Your task to perform on an android device: open app "DuckDuckGo Privacy Browser" (install if not already installed) and go to login screen Image 0: 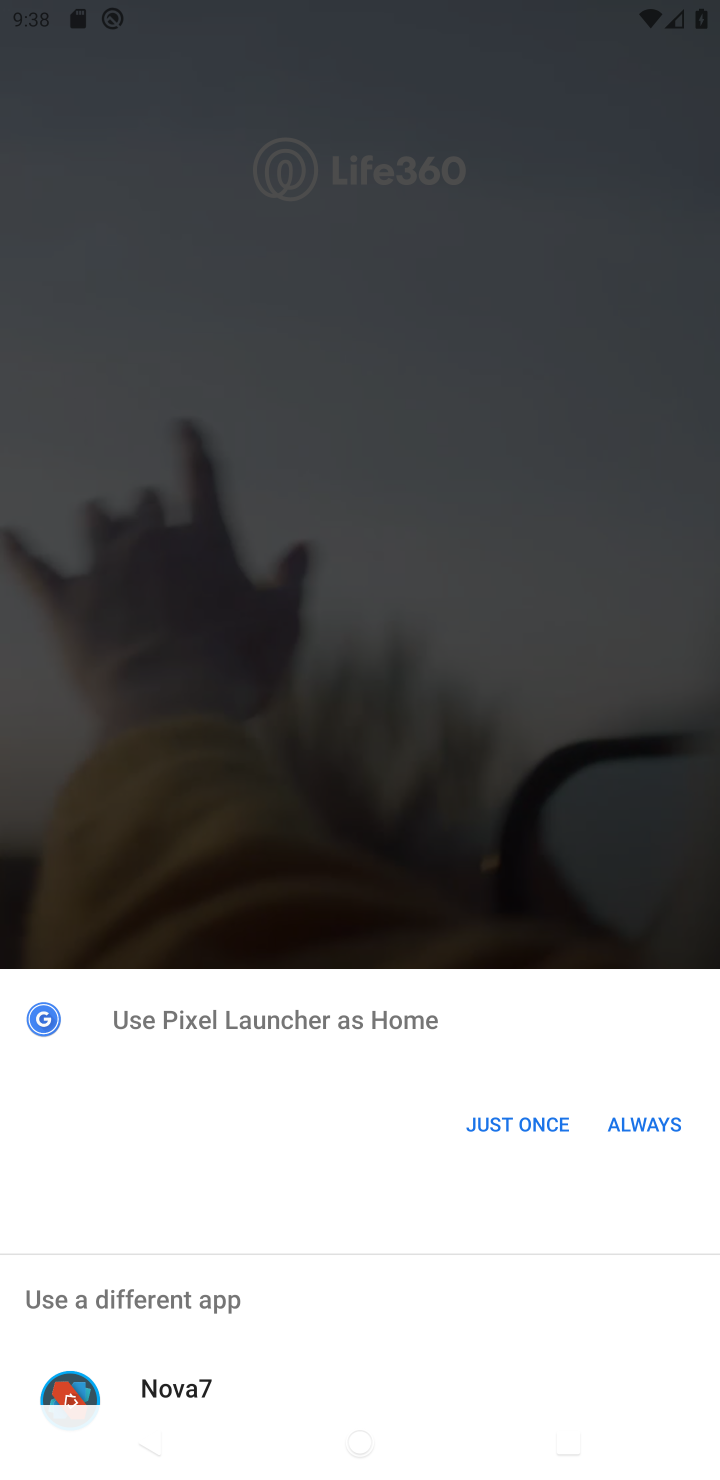
Step 0: press home button
Your task to perform on an android device: open app "DuckDuckGo Privacy Browser" (install if not already installed) and go to login screen Image 1: 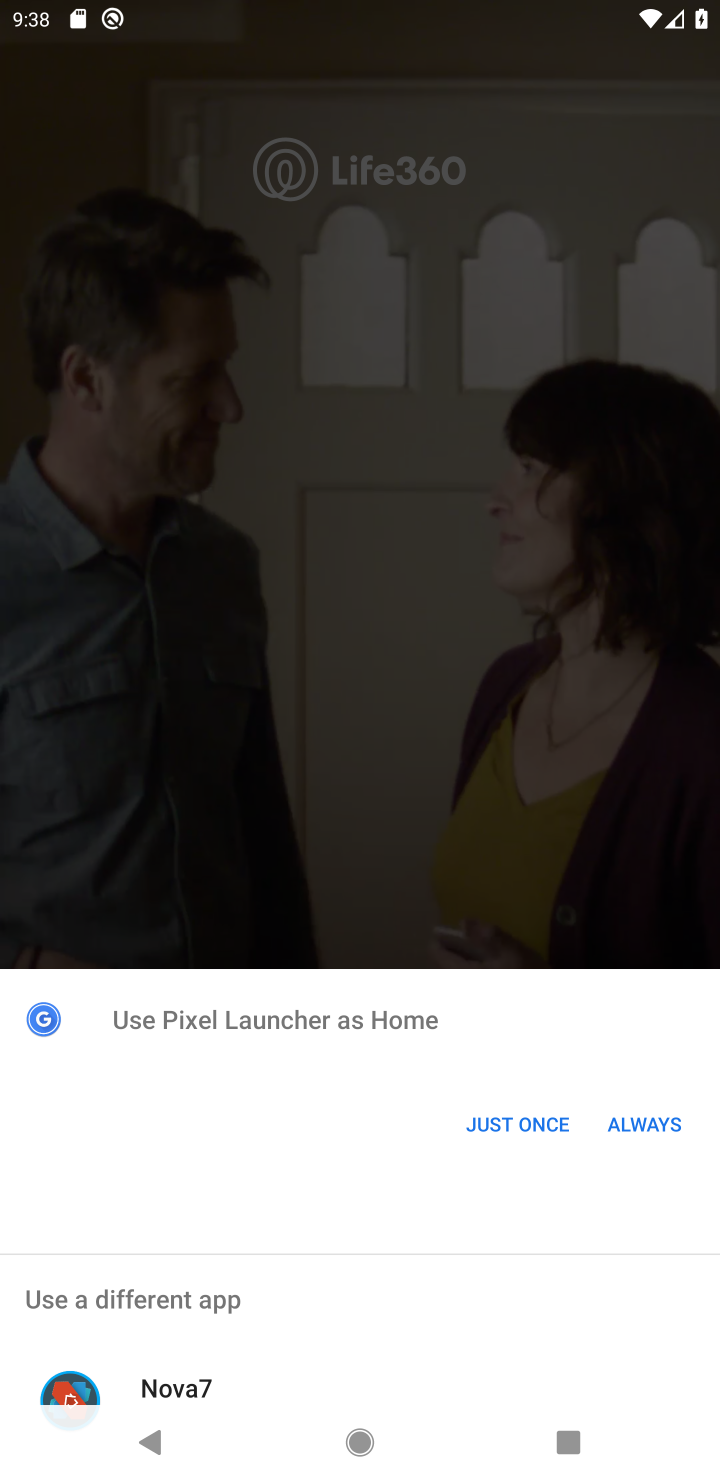
Step 1: press home button
Your task to perform on an android device: open app "DuckDuckGo Privacy Browser" (install if not already installed) and go to login screen Image 2: 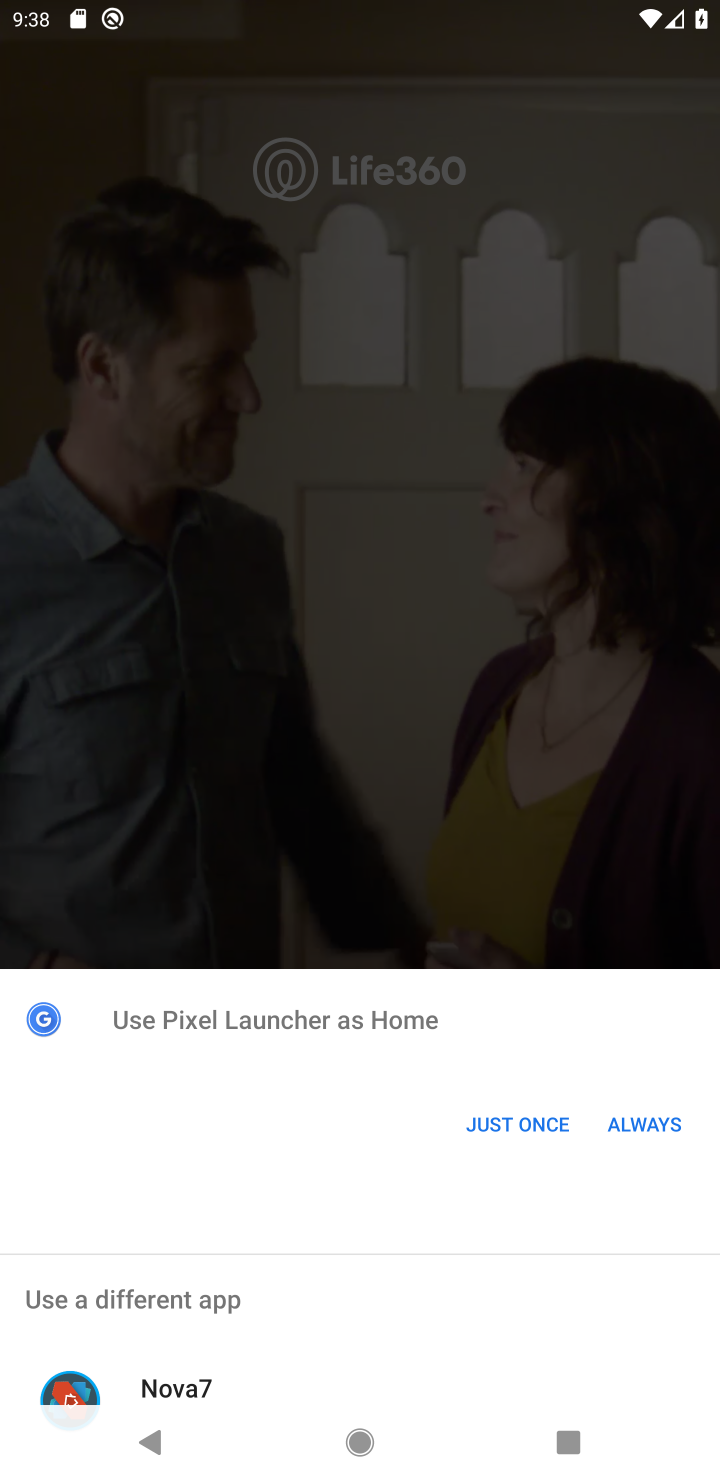
Step 2: click (649, 1133)
Your task to perform on an android device: open app "DuckDuckGo Privacy Browser" (install if not already installed) and go to login screen Image 3: 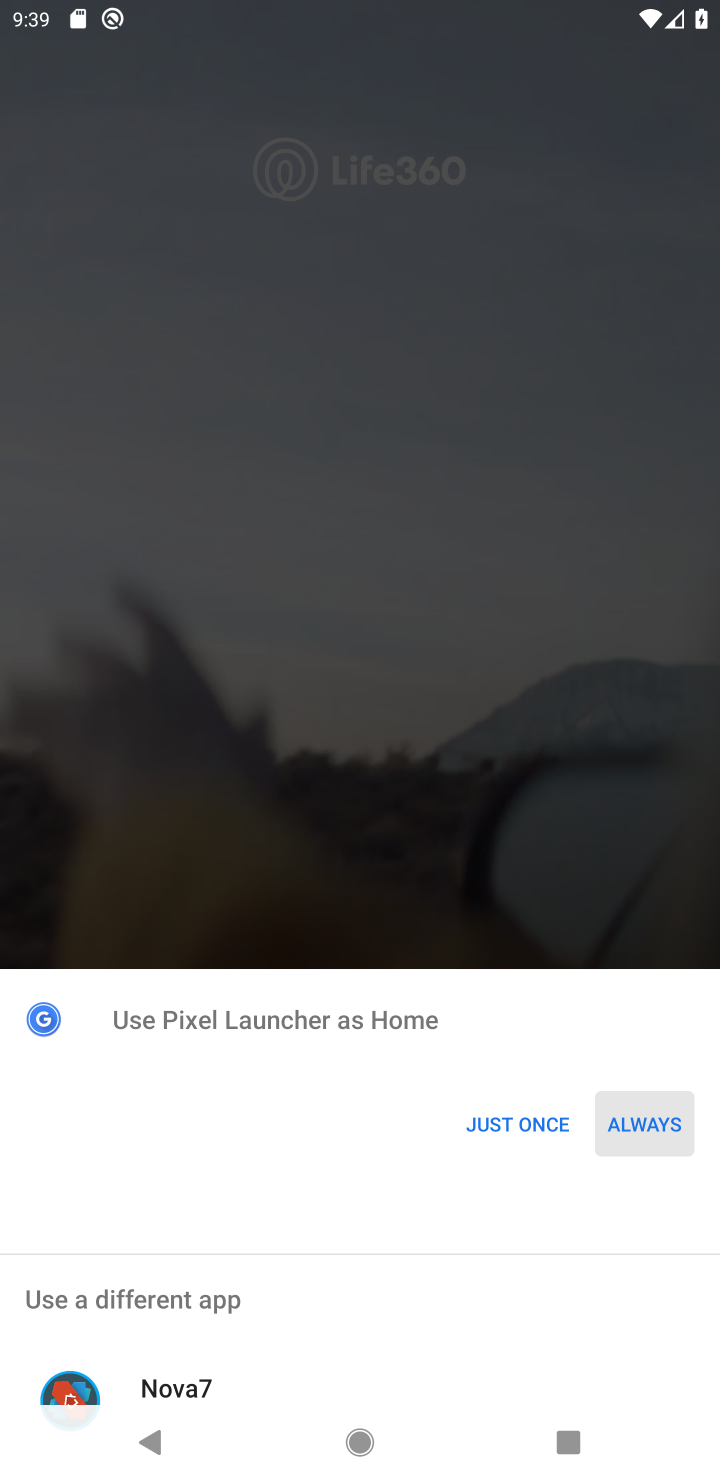
Step 3: click (621, 1120)
Your task to perform on an android device: open app "DuckDuckGo Privacy Browser" (install if not already installed) and go to login screen Image 4: 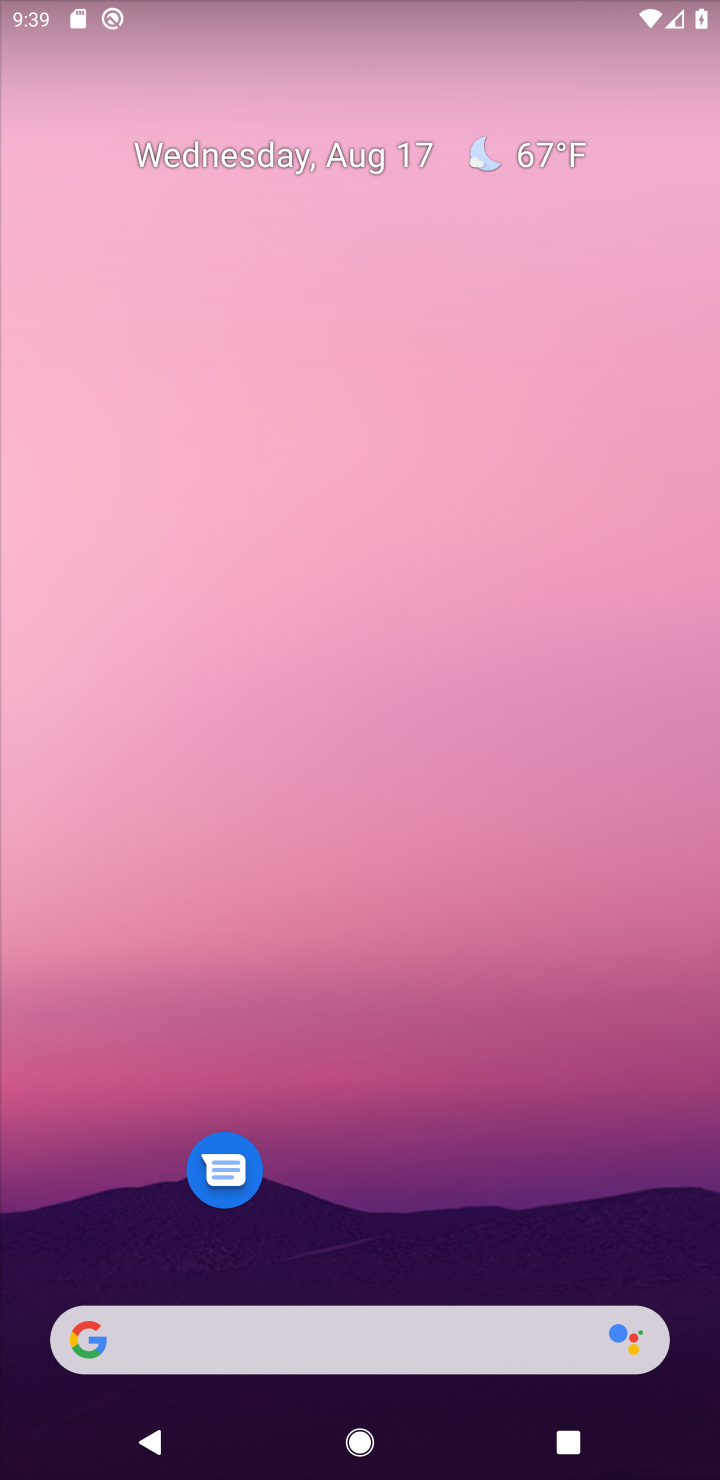
Step 4: drag from (342, 1281) to (230, 73)
Your task to perform on an android device: open app "DuckDuckGo Privacy Browser" (install if not already installed) and go to login screen Image 5: 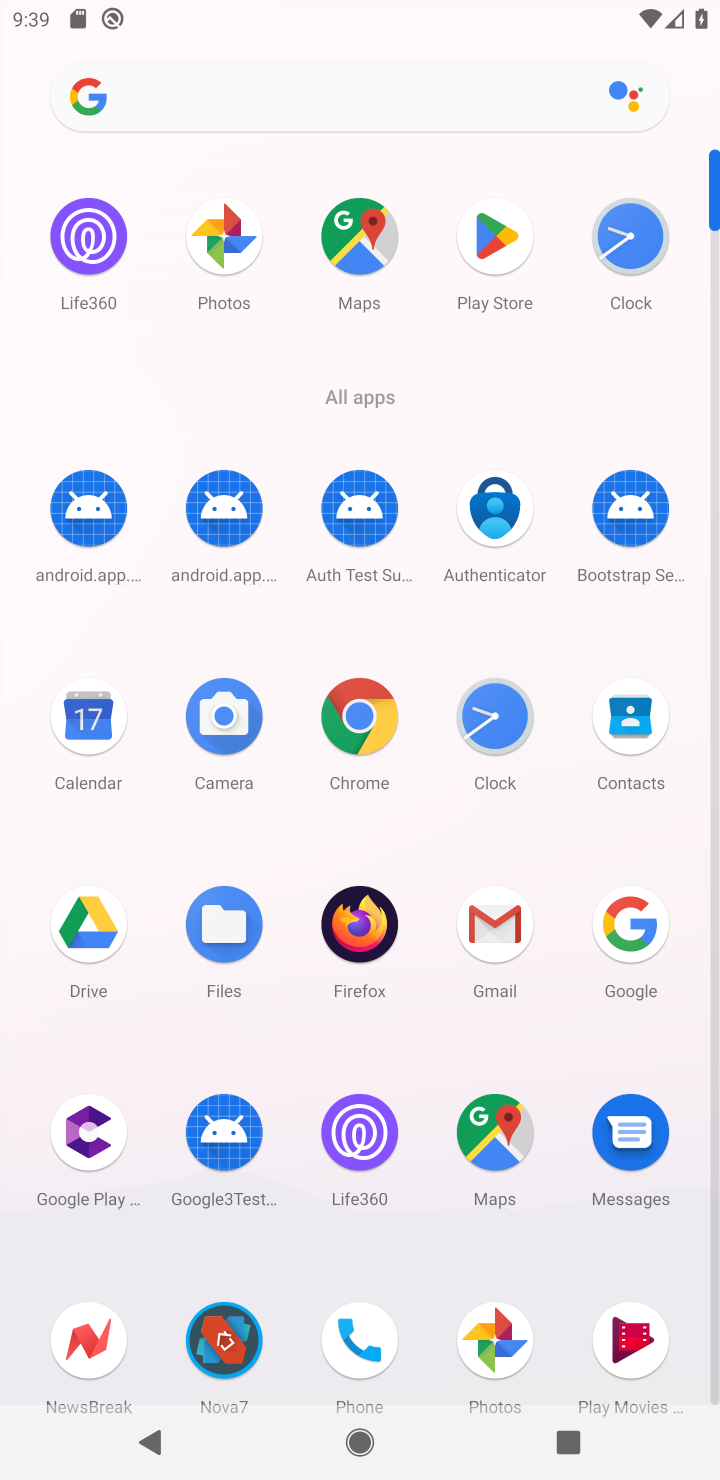
Step 5: click (521, 228)
Your task to perform on an android device: open app "DuckDuckGo Privacy Browser" (install if not already installed) and go to login screen Image 6: 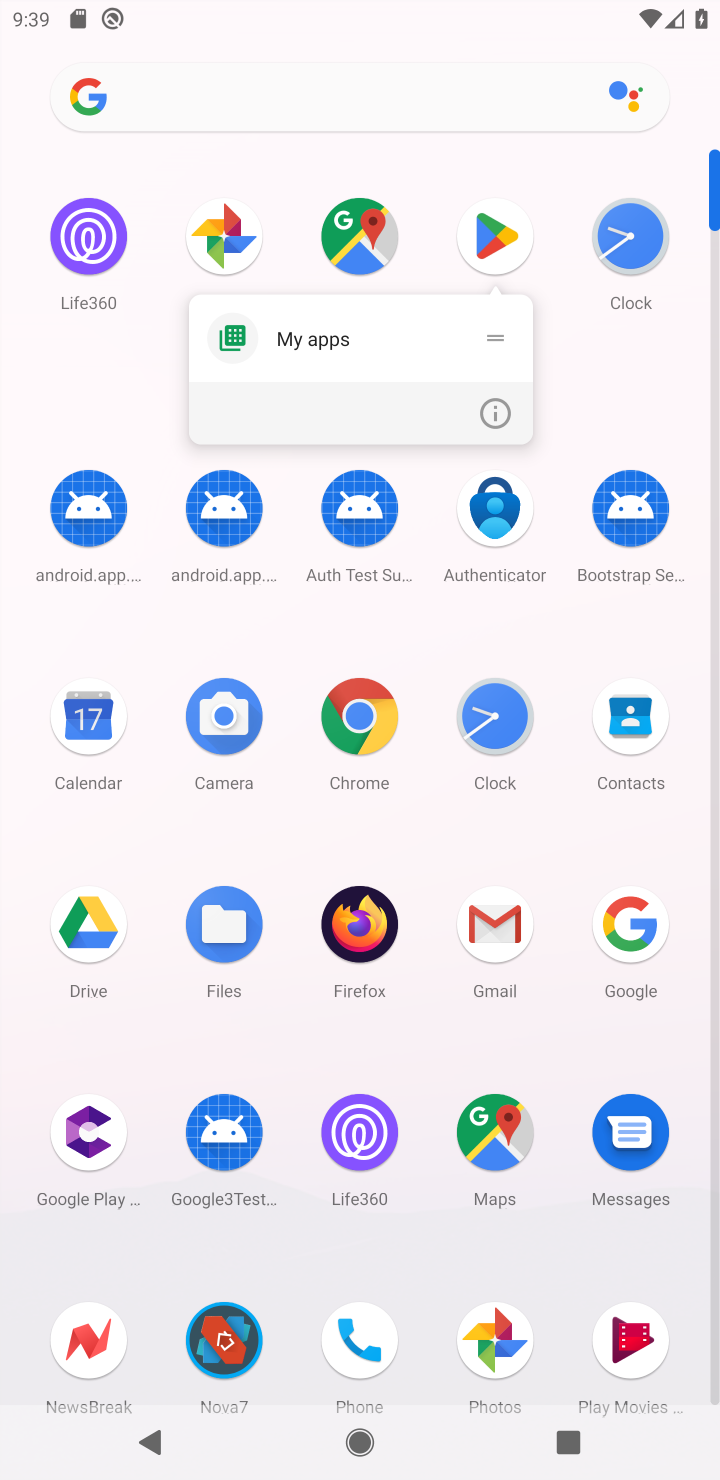
Step 6: click (482, 250)
Your task to perform on an android device: open app "DuckDuckGo Privacy Browser" (install if not already installed) and go to login screen Image 7: 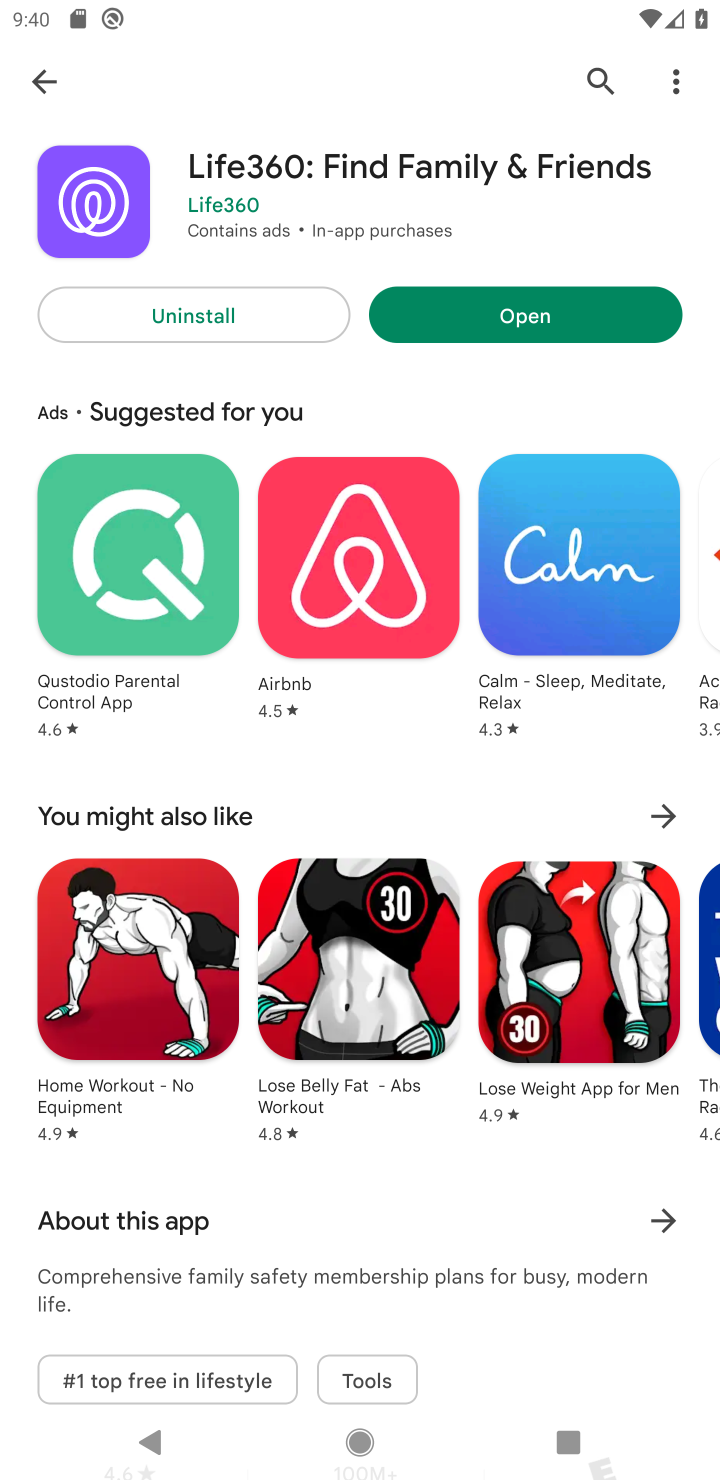
Step 7: click (56, 76)
Your task to perform on an android device: open app "DuckDuckGo Privacy Browser" (install if not already installed) and go to login screen Image 8: 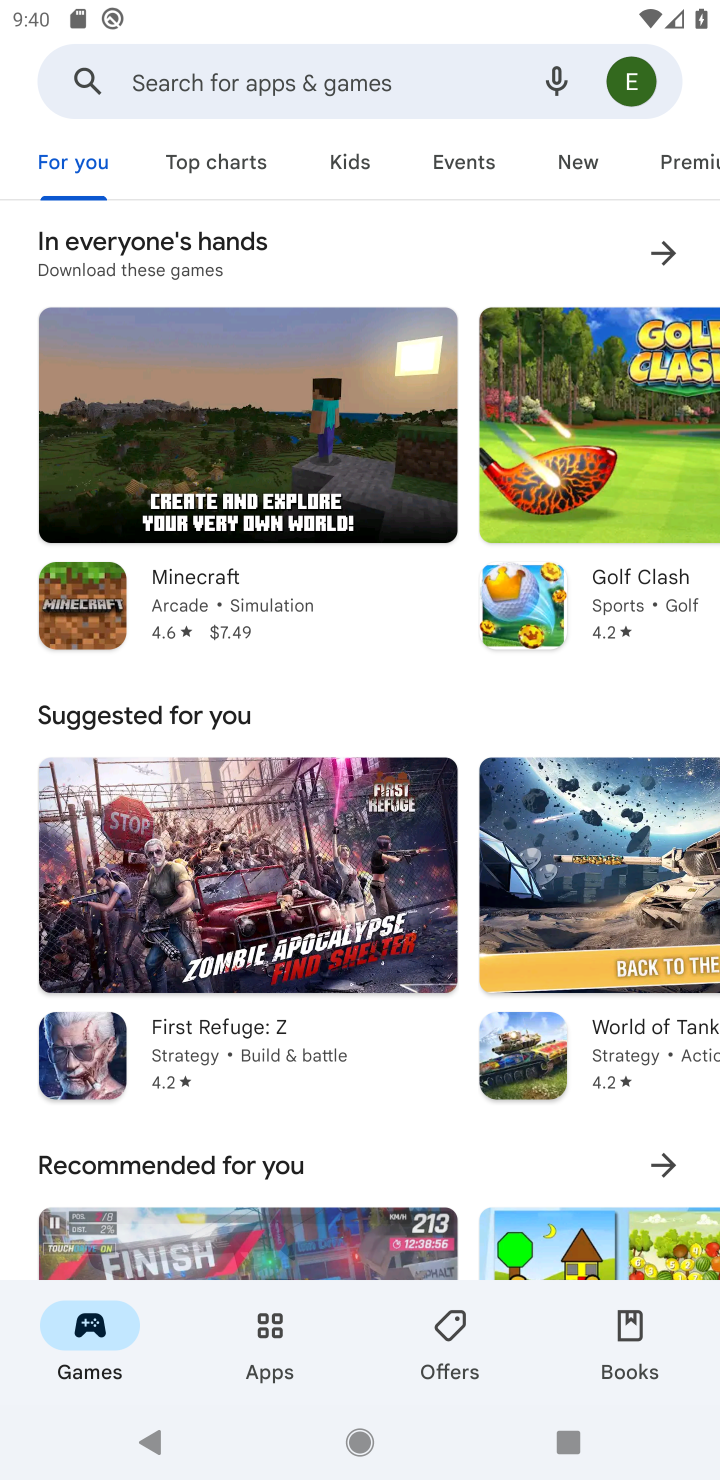
Step 8: click (263, 68)
Your task to perform on an android device: open app "DuckDuckGo Privacy Browser" (install if not already installed) and go to login screen Image 9: 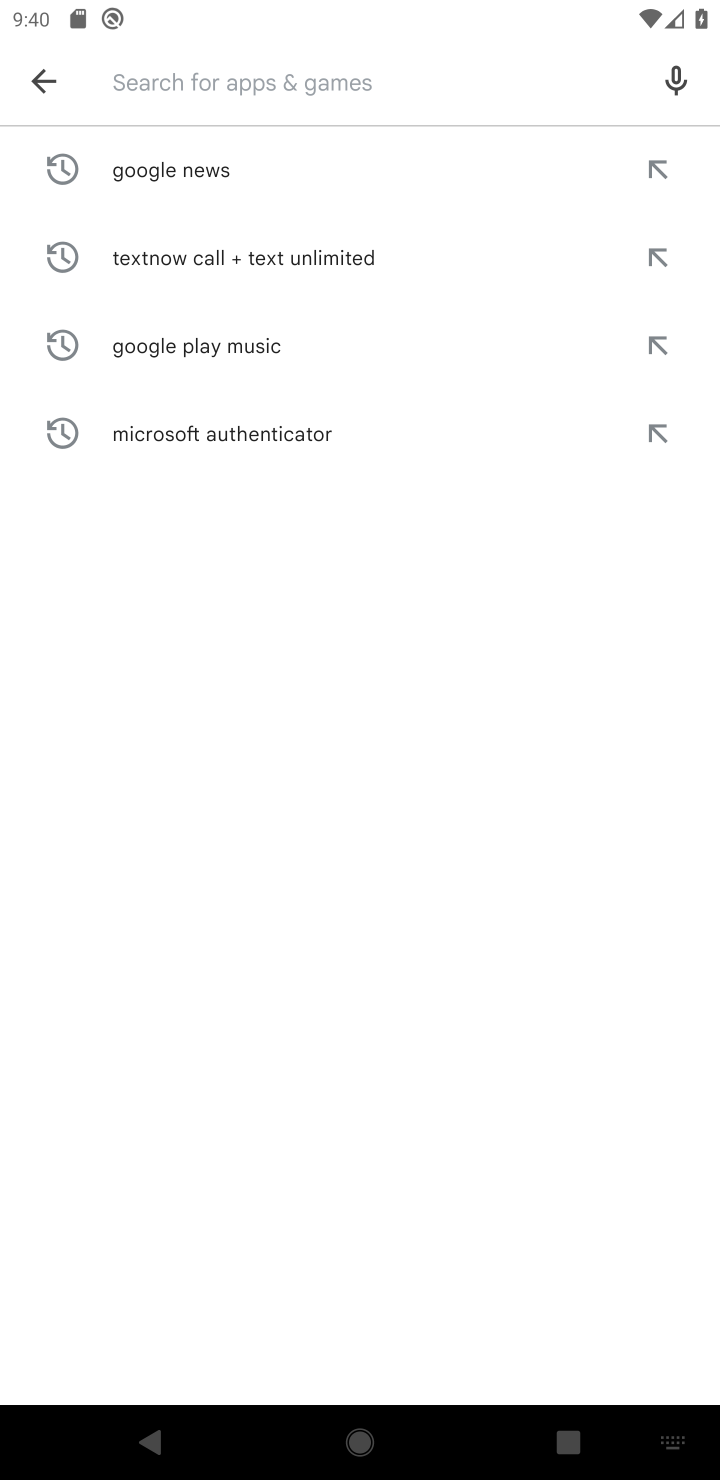
Step 9: type "DuckDuckGo Privacy Browser"
Your task to perform on an android device: open app "DuckDuckGo Privacy Browser" (install if not already installed) and go to login screen Image 10: 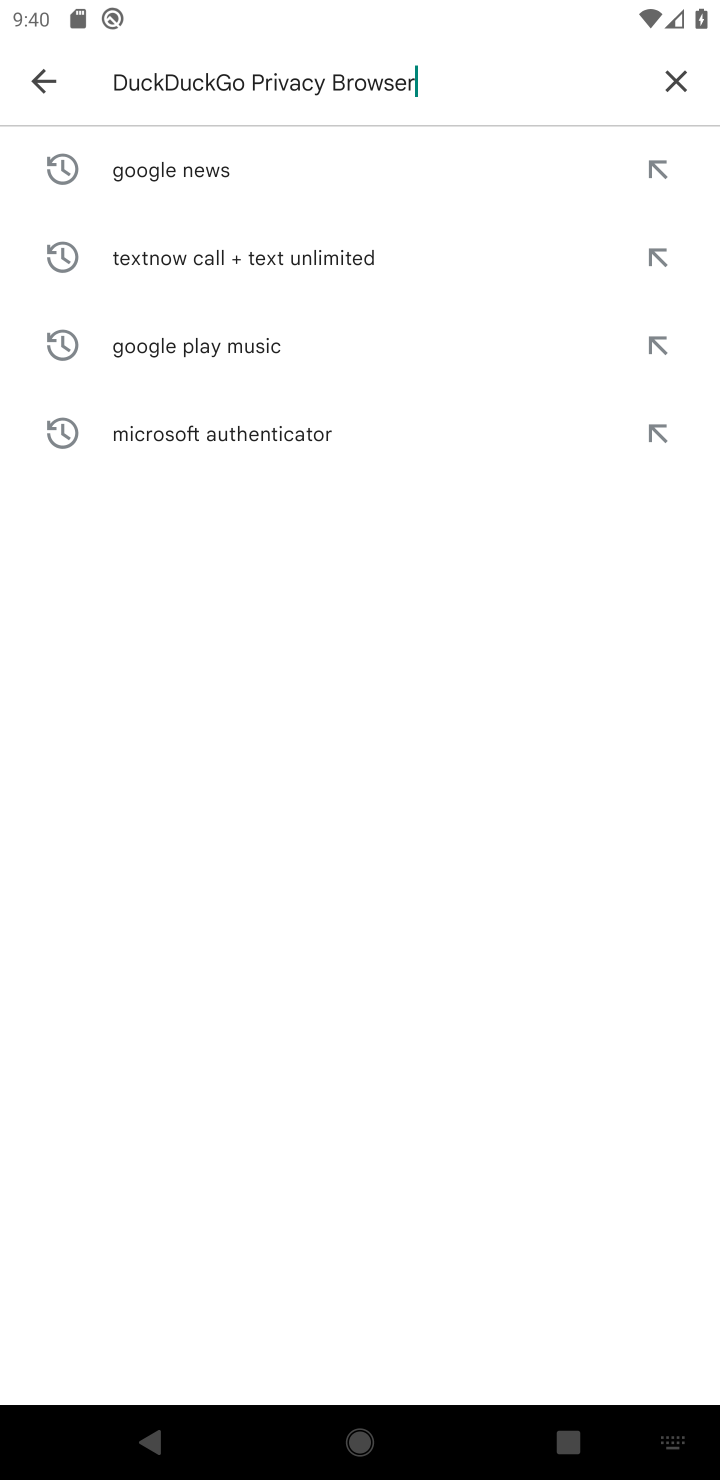
Step 10: type ""
Your task to perform on an android device: open app "DuckDuckGo Privacy Browser" (install if not already installed) and go to login screen Image 11: 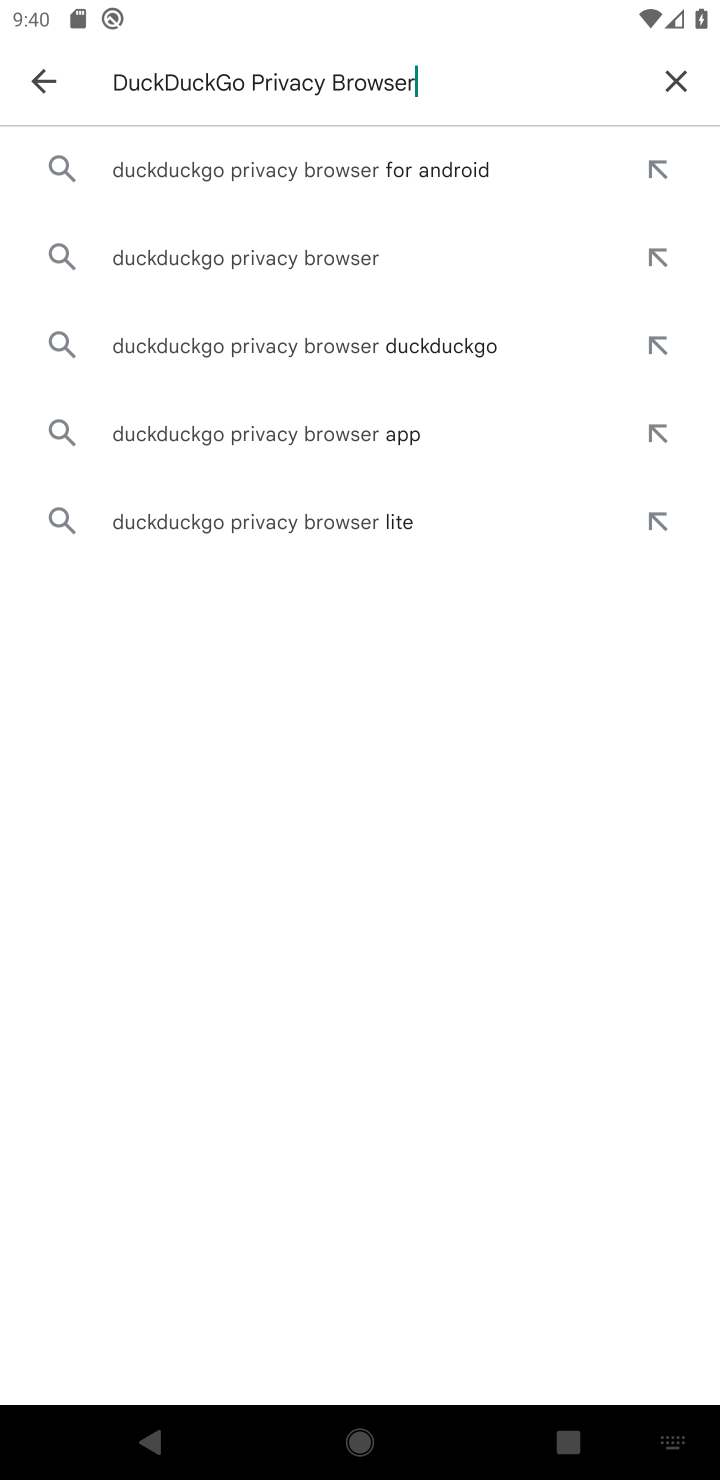
Step 11: click (324, 164)
Your task to perform on an android device: open app "DuckDuckGo Privacy Browser" (install if not already installed) and go to login screen Image 12: 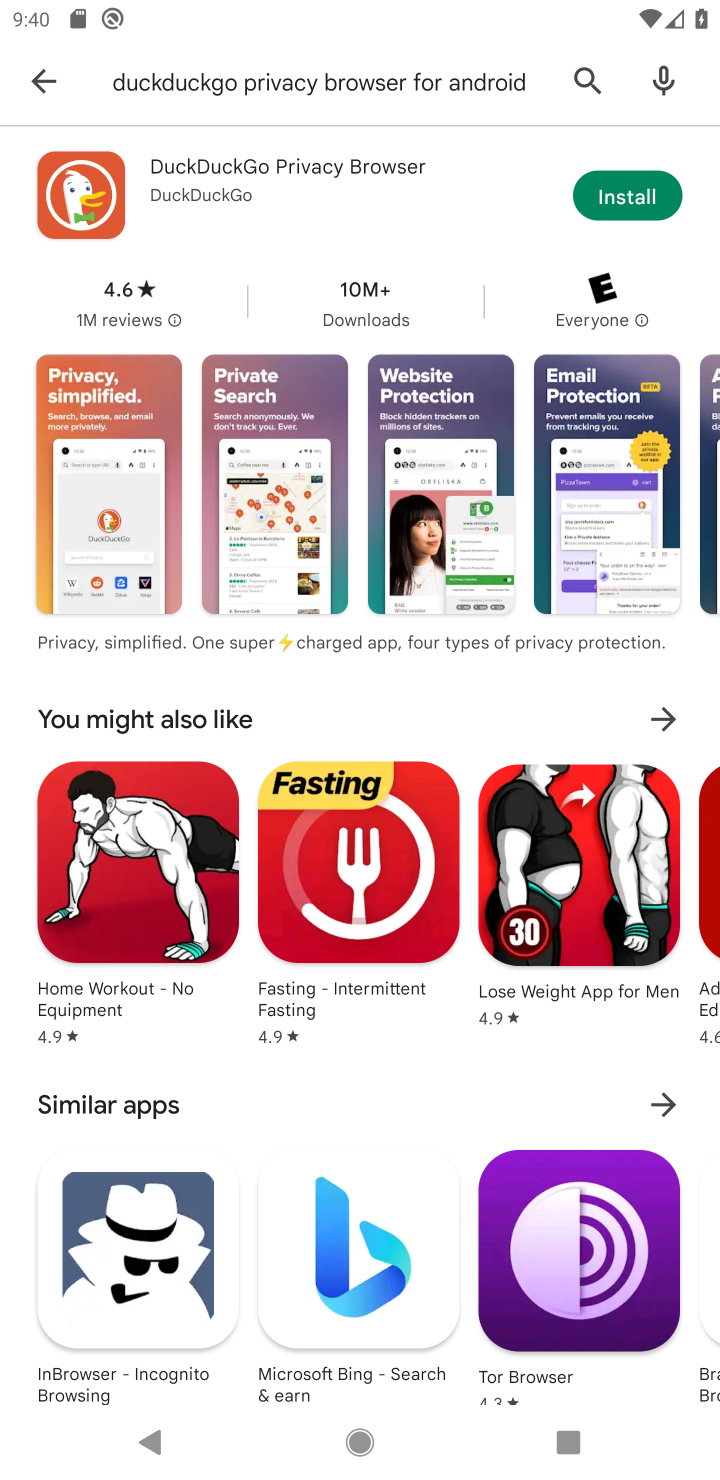
Step 12: click (600, 196)
Your task to perform on an android device: open app "DuckDuckGo Privacy Browser" (install if not already installed) and go to login screen Image 13: 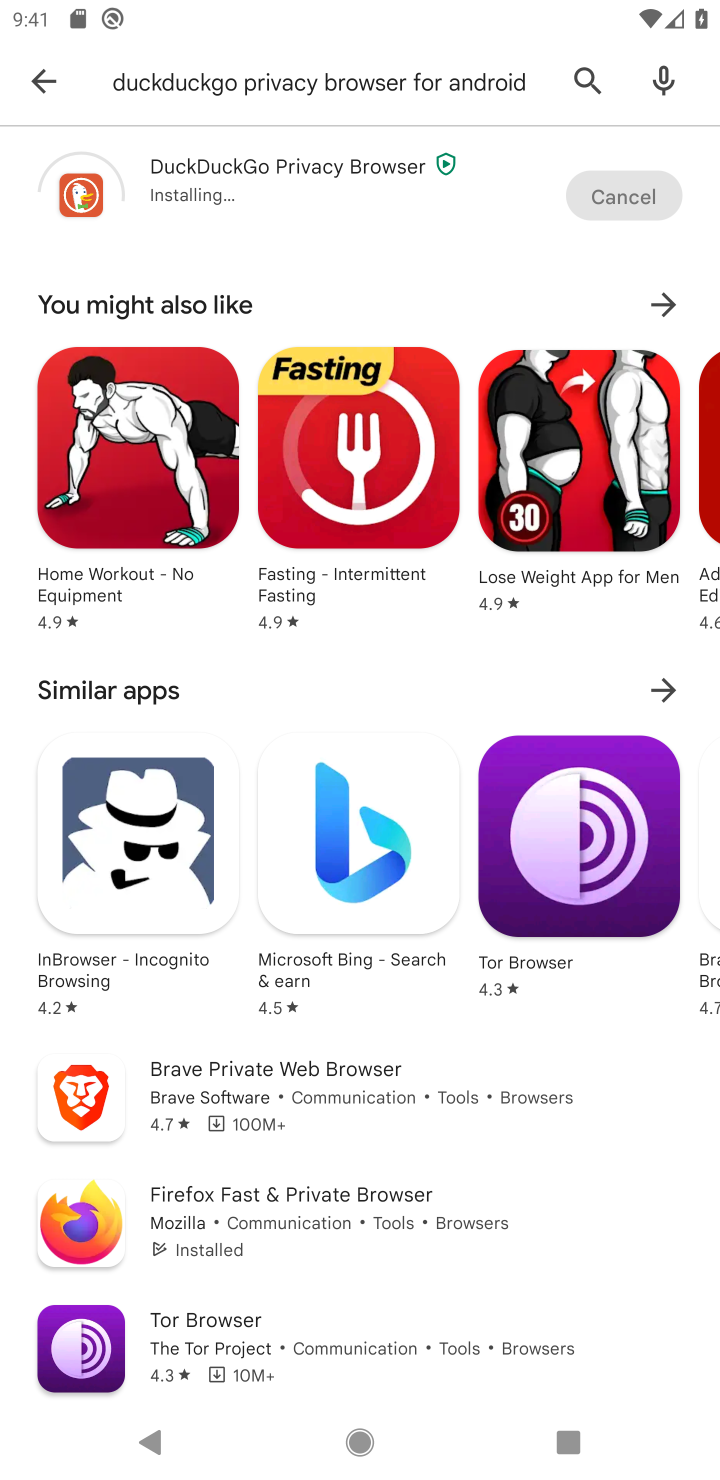
Step 13: click (199, 195)
Your task to perform on an android device: open app "DuckDuckGo Privacy Browser" (install if not already installed) and go to login screen Image 14: 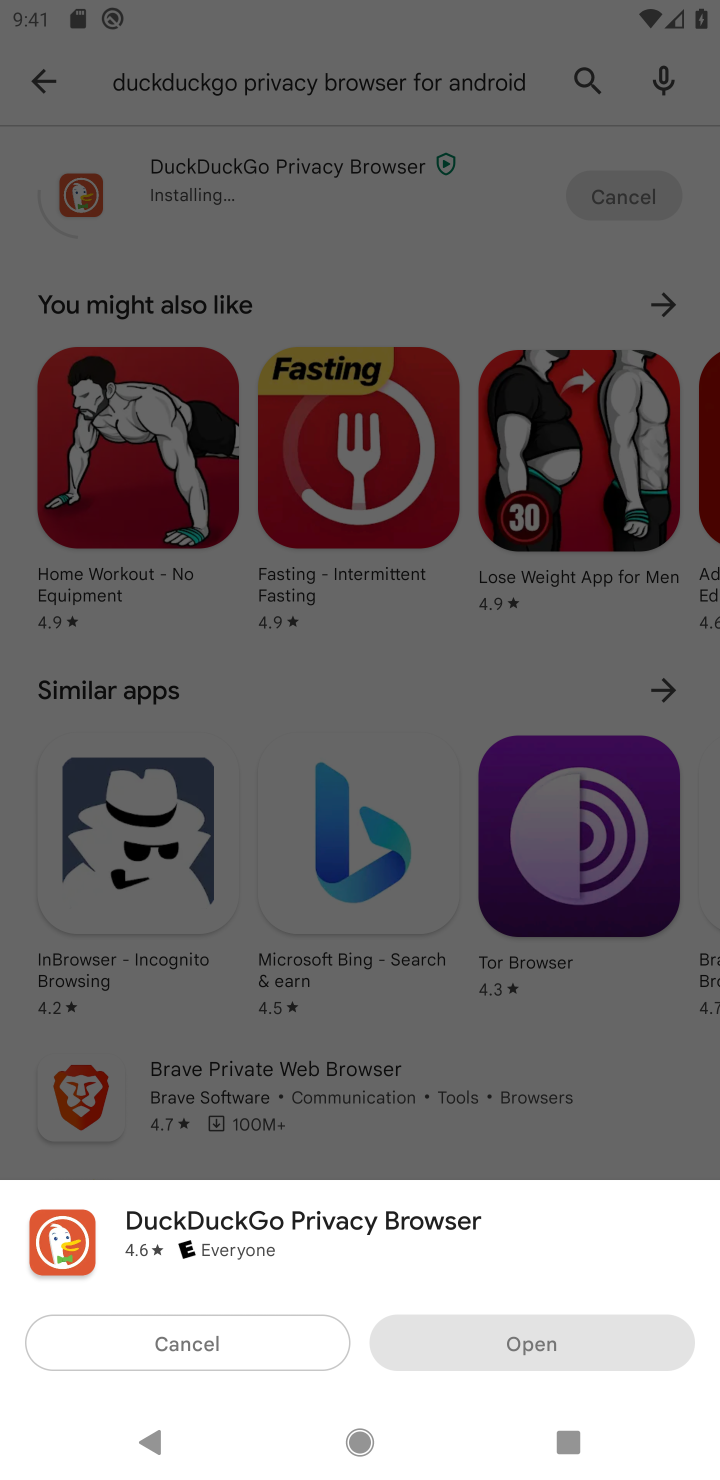
Step 14: click (188, 164)
Your task to perform on an android device: open app "DuckDuckGo Privacy Browser" (install if not already installed) and go to login screen Image 15: 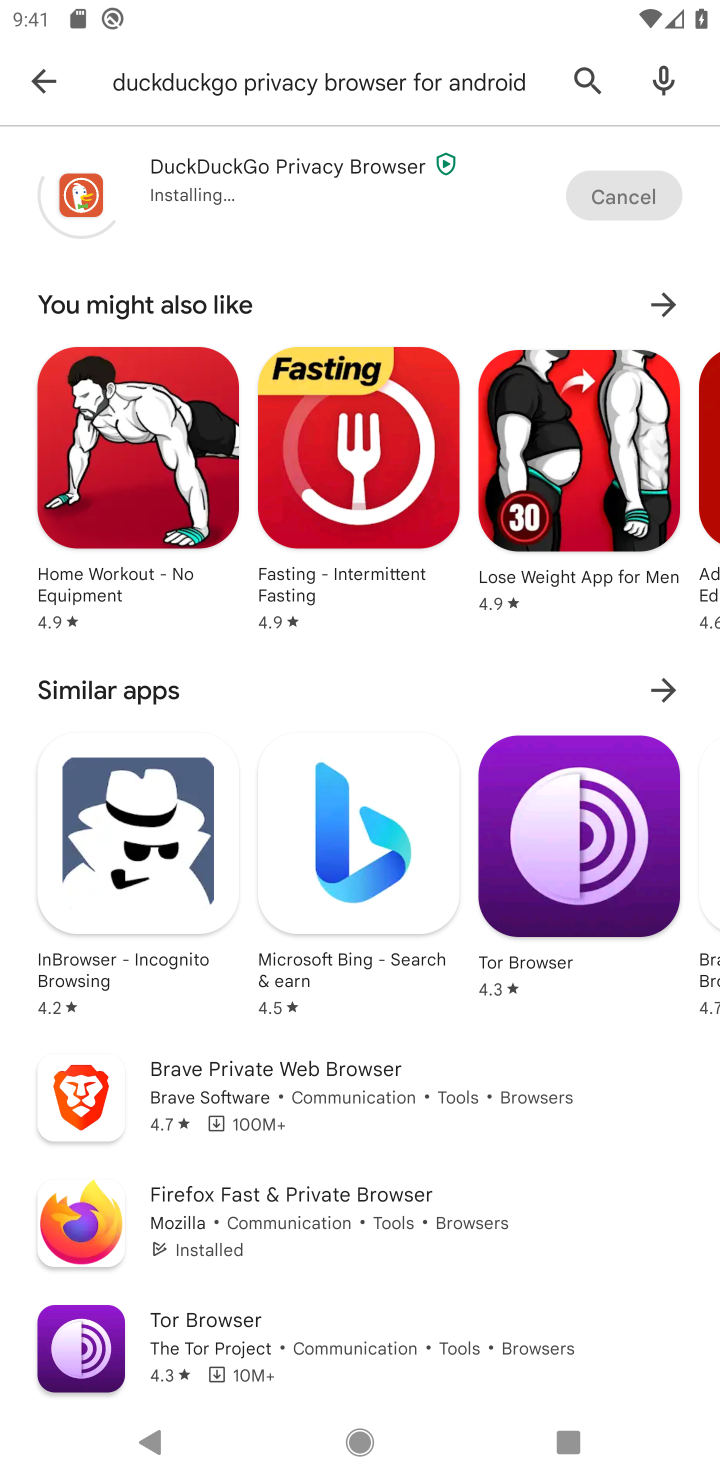
Step 15: click (124, 159)
Your task to perform on an android device: open app "DuckDuckGo Privacy Browser" (install if not already installed) and go to login screen Image 16: 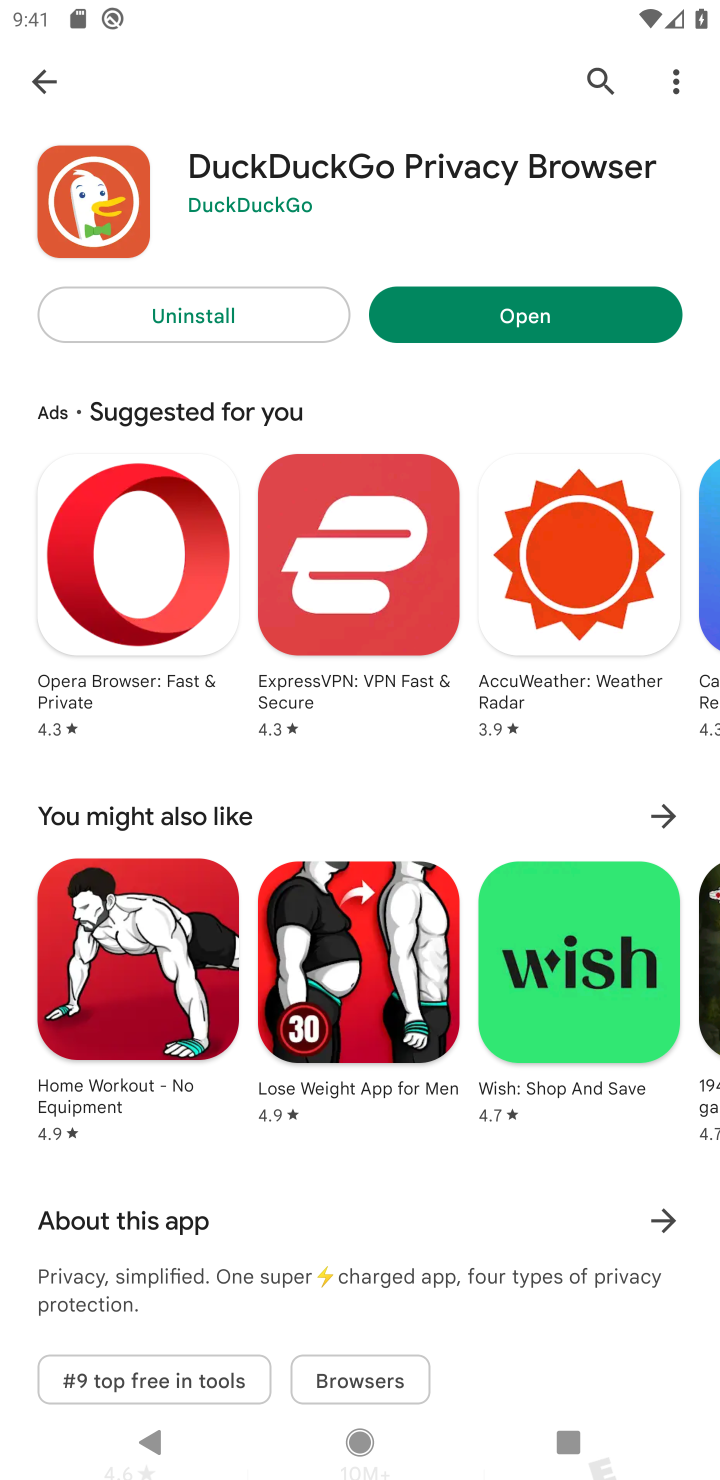
Step 16: click (460, 298)
Your task to perform on an android device: open app "DuckDuckGo Privacy Browser" (install if not already installed) and go to login screen Image 17: 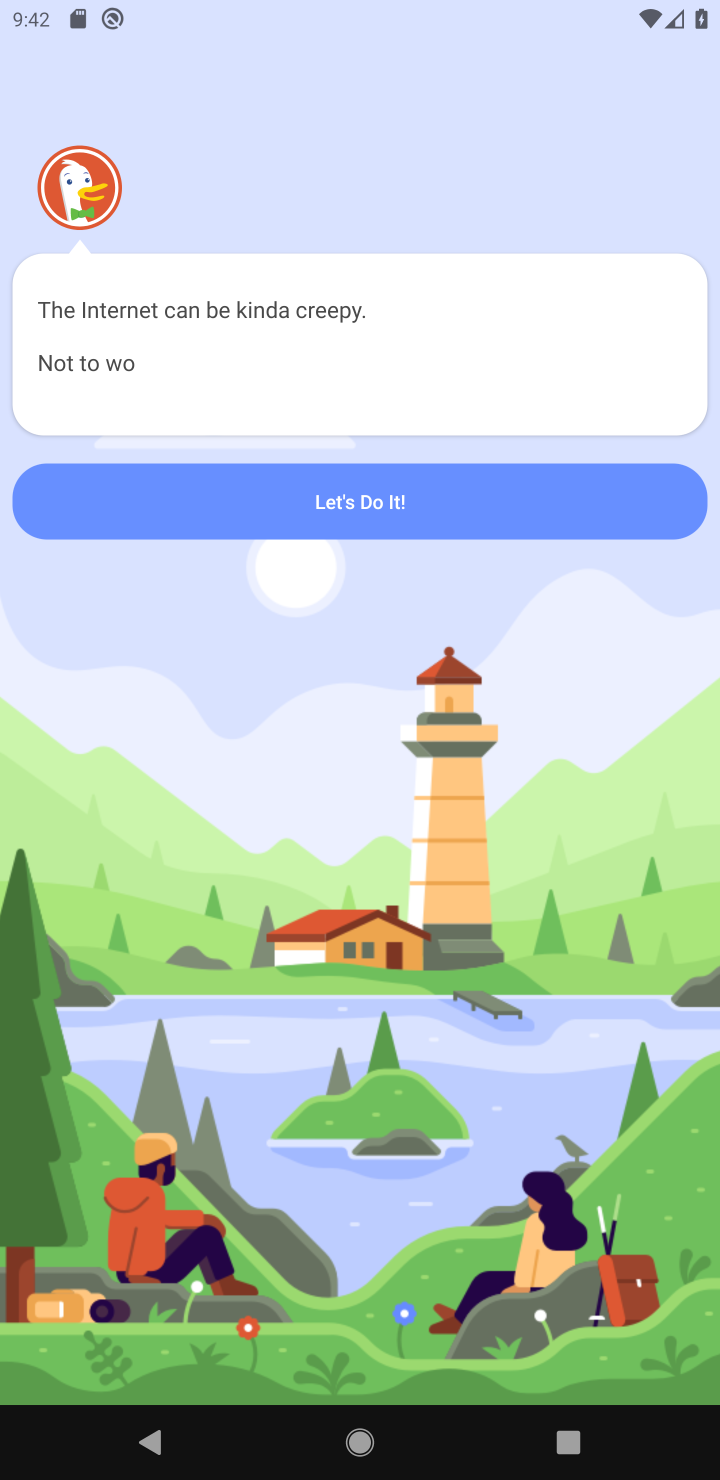
Step 17: click (377, 500)
Your task to perform on an android device: open app "DuckDuckGo Privacy Browser" (install if not already installed) and go to login screen Image 18: 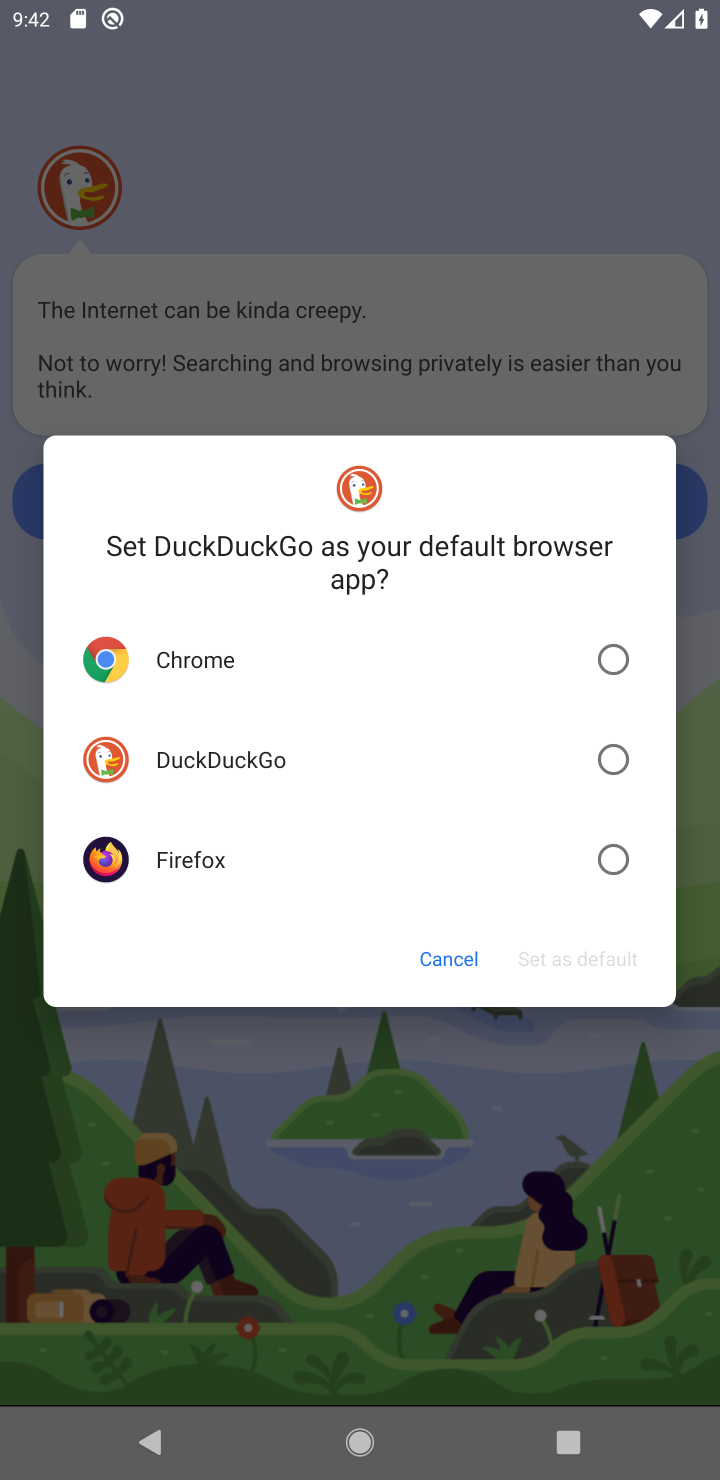
Step 18: click (586, 751)
Your task to perform on an android device: open app "DuckDuckGo Privacy Browser" (install if not already installed) and go to login screen Image 19: 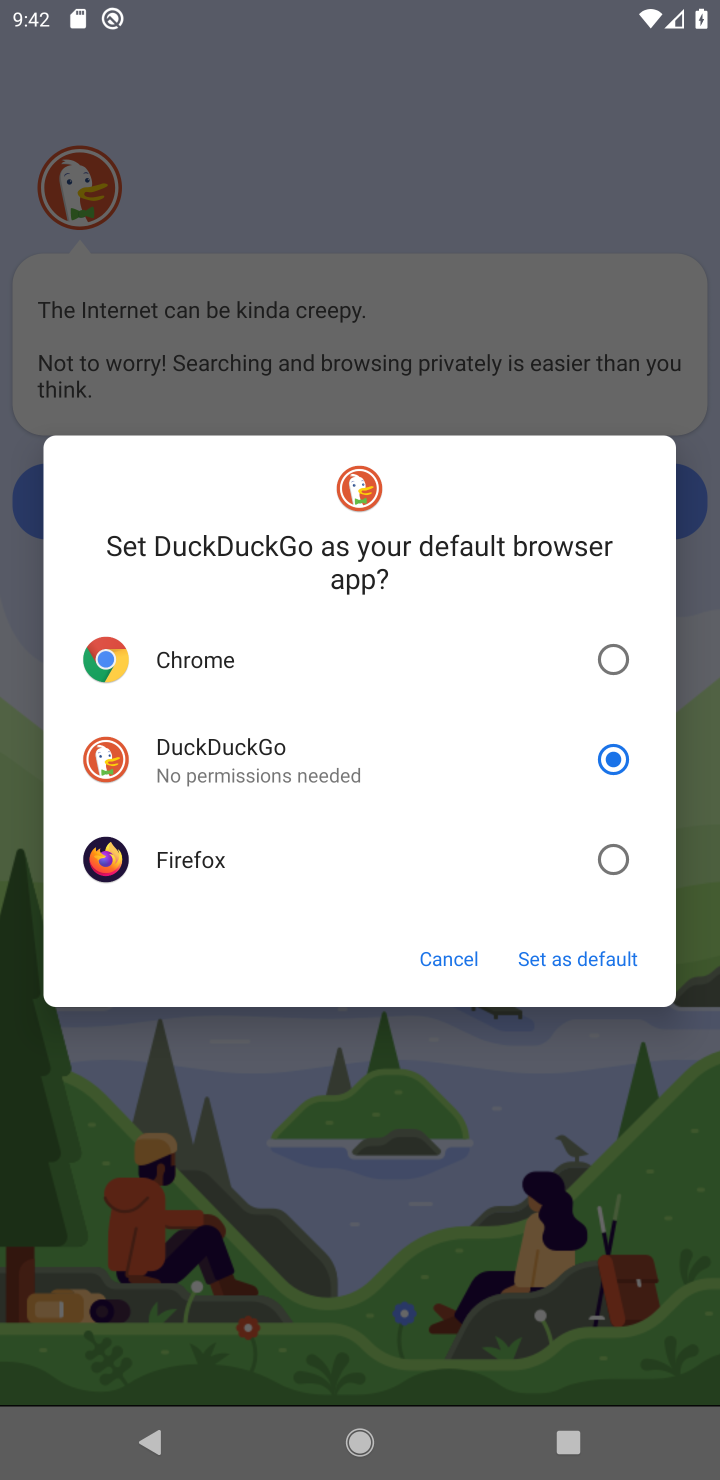
Step 19: click (576, 973)
Your task to perform on an android device: open app "DuckDuckGo Privacy Browser" (install if not already installed) and go to login screen Image 20: 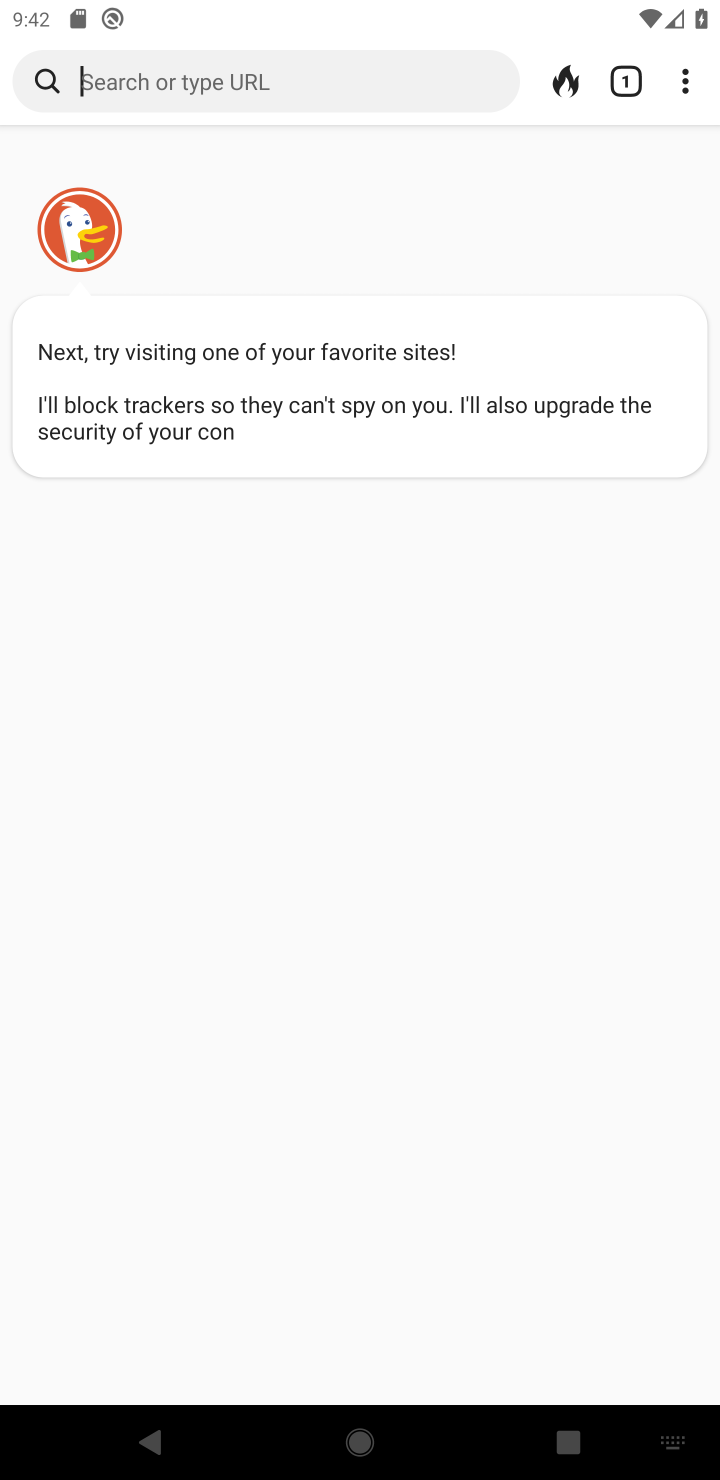
Step 20: task complete